Your task to perform on an android device: Check the news Image 0: 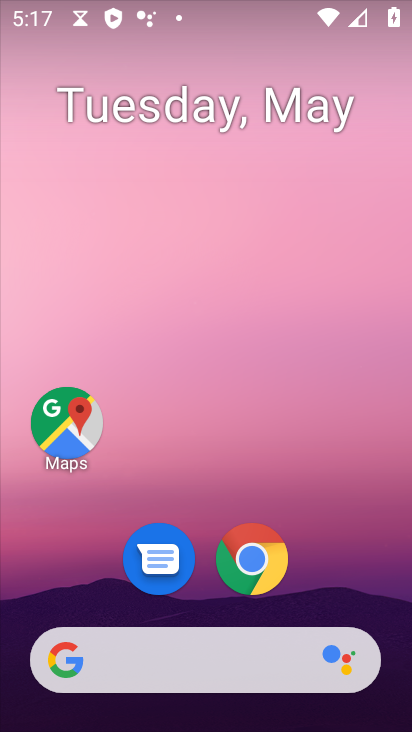
Step 0: click (302, 731)
Your task to perform on an android device: Check the news Image 1: 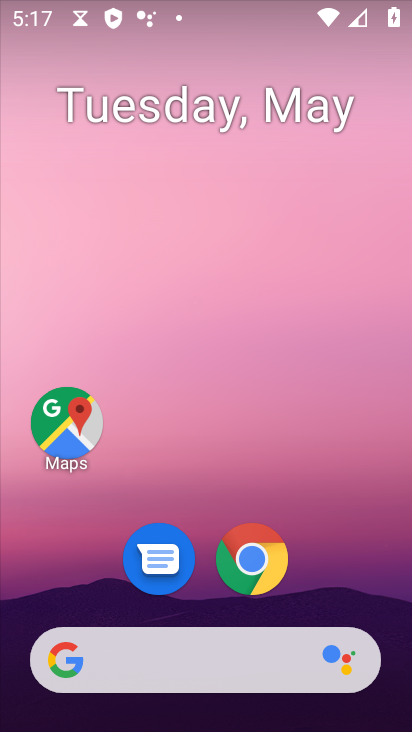
Step 1: click (407, 417)
Your task to perform on an android device: Check the news Image 2: 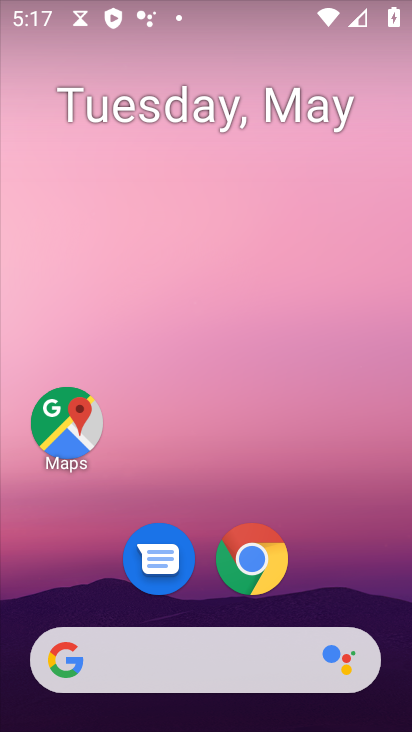
Step 2: task complete